Your task to perform on an android device: Open Google Maps Image 0: 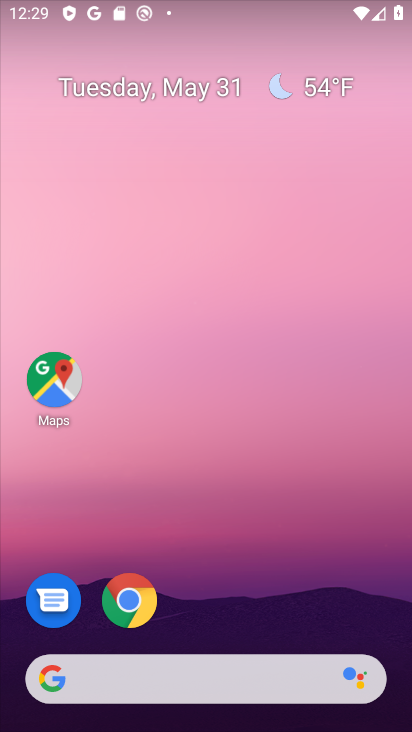
Step 0: drag from (255, 657) to (313, 730)
Your task to perform on an android device: Open Google Maps Image 1: 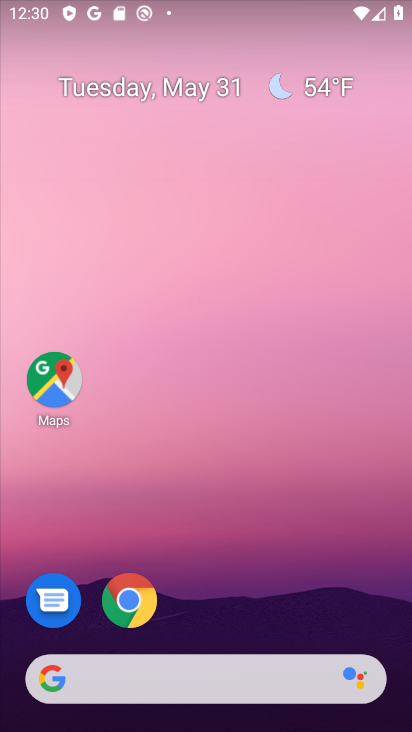
Step 1: drag from (253, 625) to (239, 94)
Your task to perform on an android device: Open Google Maps Image 2: 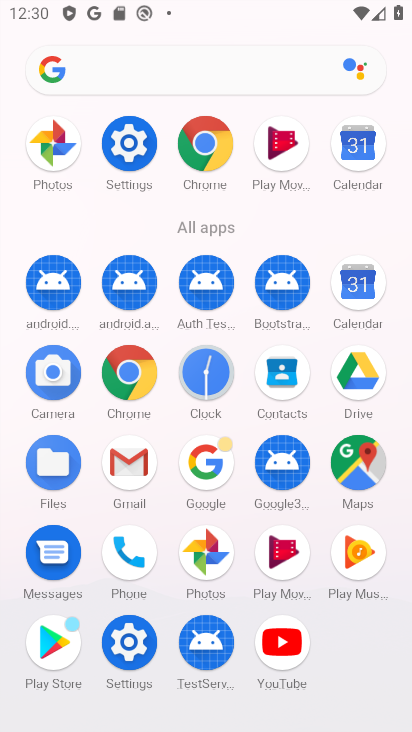
Step 2: click (345, 465)
Your task to perform on an android device: Open Google Maps Image 3: 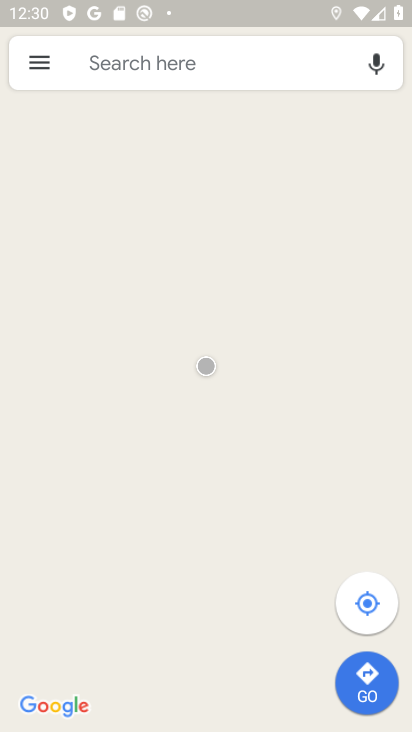
Step 3: task complete